Your task to perform on an android device: Show me the alarms in the clock app Image 0: 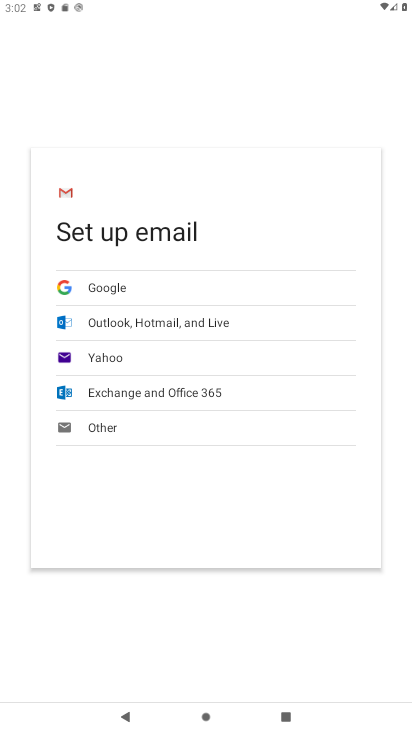
Step 0: press home button
Your task to perform on an android device: Show me the alarms in the clock app Image 1: 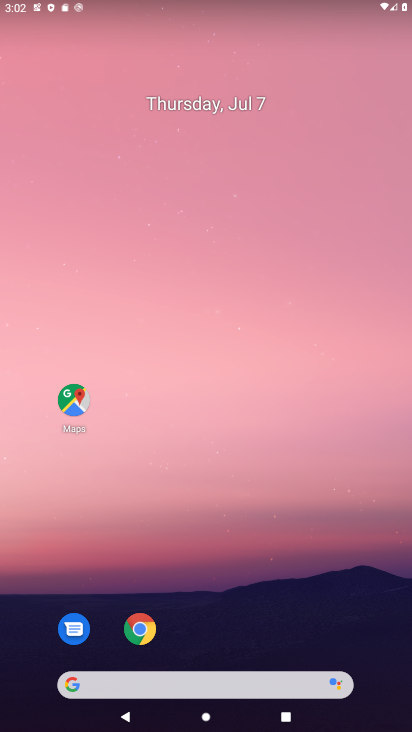
Step 1: drag from (282, 640) to (299, 12)
Your task to perform on an android device: Show me the alarms in the clock app Image 2: 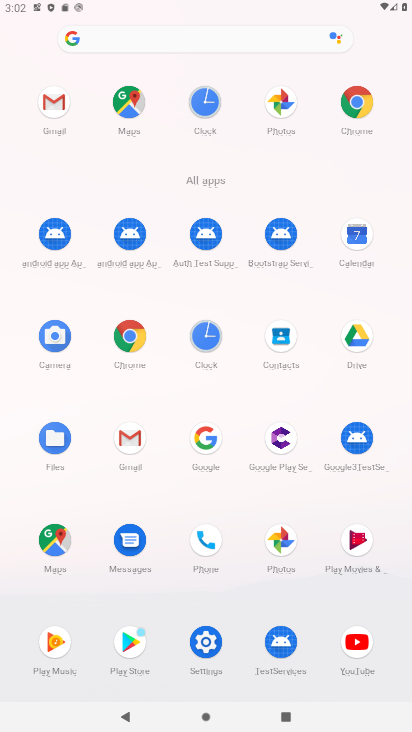
Step 2: click (198, 345)
Your task to perform on an android device: Show me the alarms in the clock app Image 3: 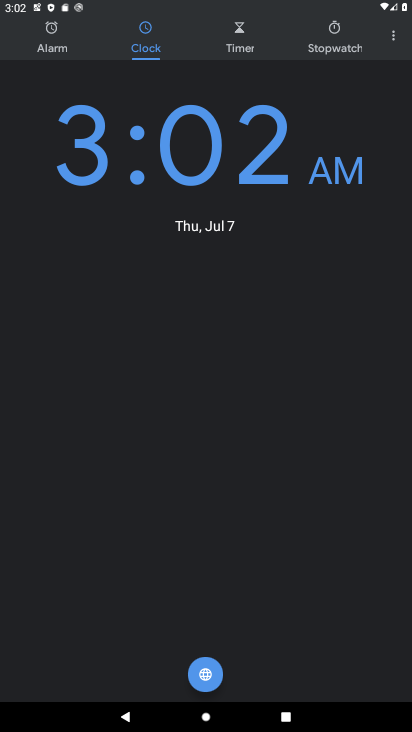
Step 3: click (77, 42)
Your task to perform on an android device: Show me the alarms in the clock app Image 4: 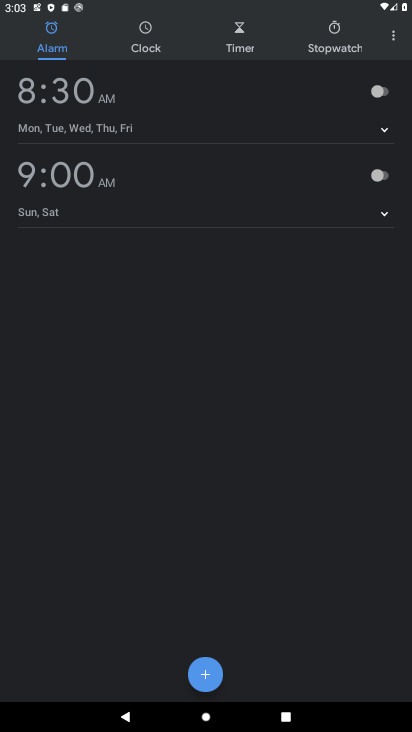
Step 4: click (382, 180)
Your task to perform on an android device: Show me the alarms in the clock app Image 5: 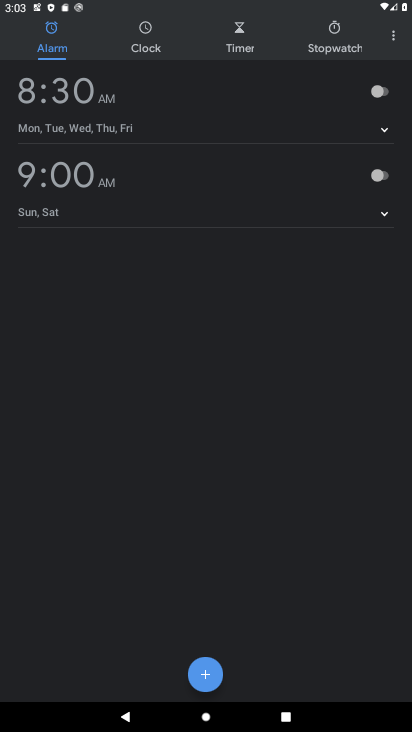
Step 5: task complete